Your task to perform on an android device: turn on javascript in the chrome app Image 0: 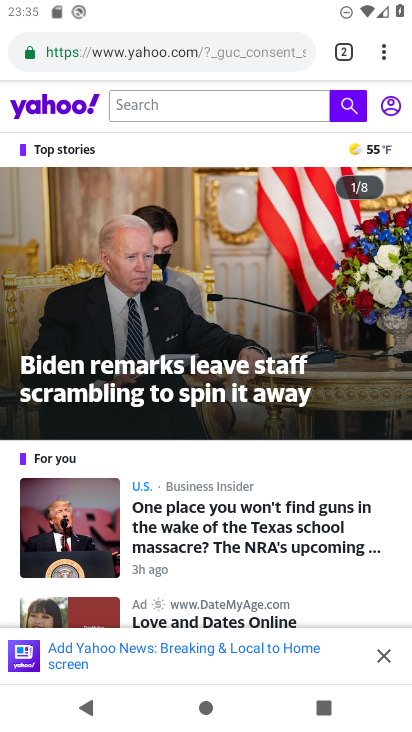
Step 0: click (390, 42)
Your task to perform on an android device: turn on javascript in the chrome app Image 1: 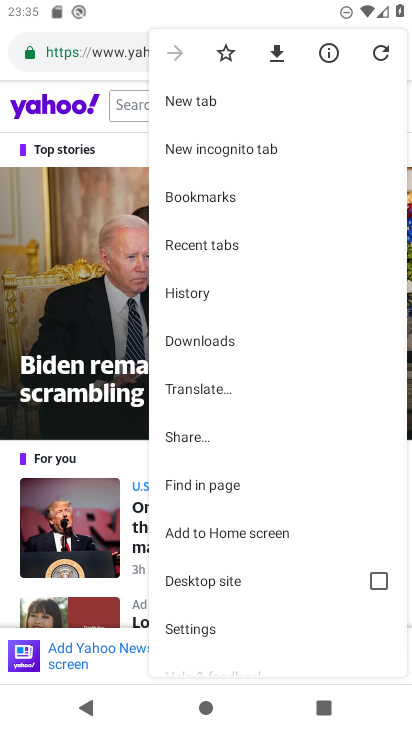
Step 1: click (233, 627)
Your task to perform on an android device: turn on javascript in the chrome app Image 2: 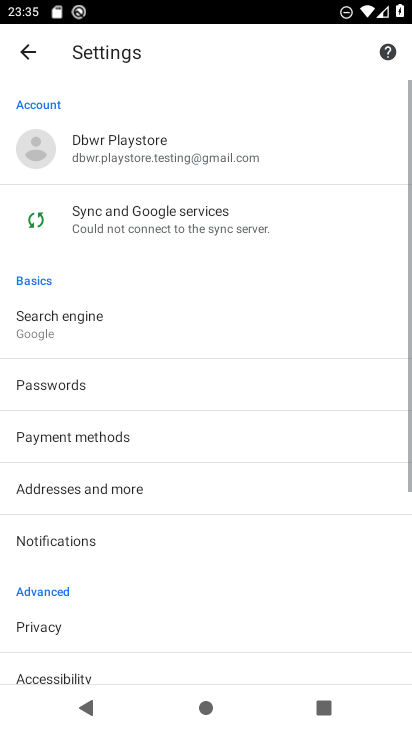
Step 2: drag from (188, 576) to (188, 142)
Your task to perform on an android device: turn on javascript in the chrome app Image 3: 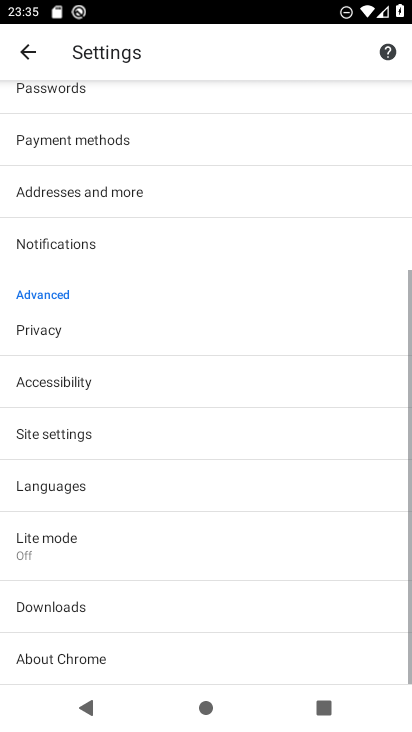
Step 3: click (113, 435)
Your task to perform on an android device: turn on javascript in the chrome app Image 4: 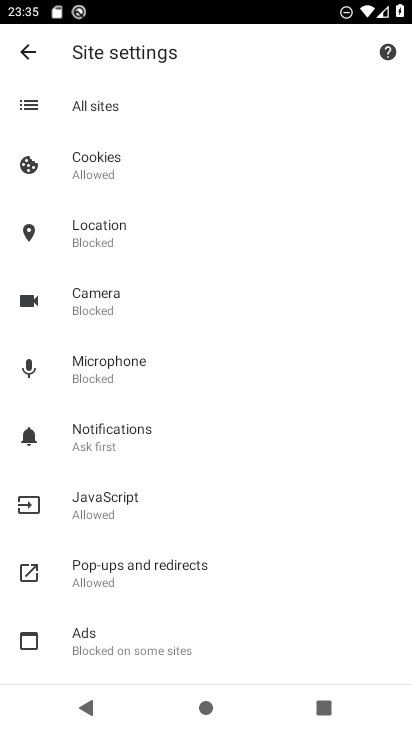
Step 4: click (167, 502)
Your task to perform on an android device: turn on javascript in the chrome app Image 5: 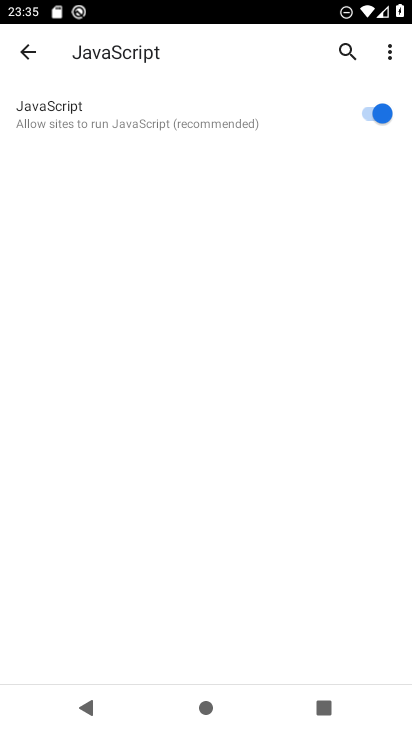
Step 5: task complete